Your task to perform on an android device: set the stopwatch Image 0: 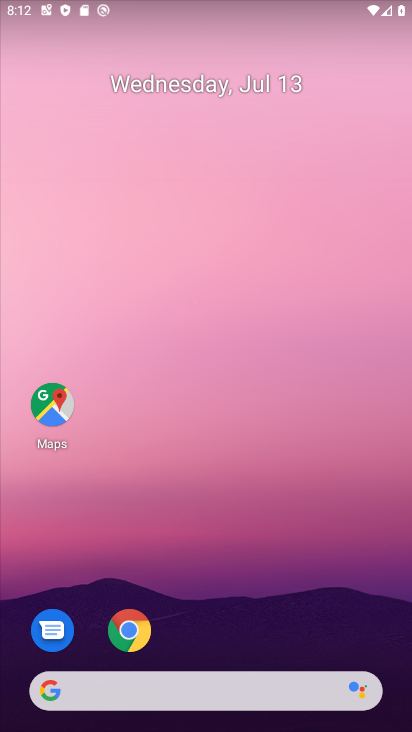
Step 0: drag from (350, 630) to (358, 157)
Your task to perform on an android device: set the stopwatch Image 1: 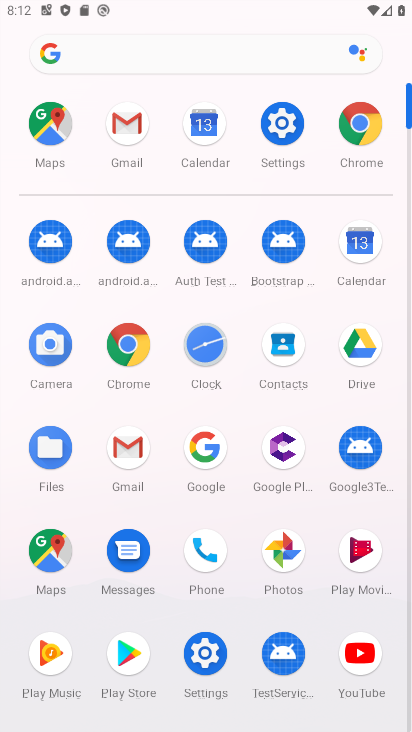
Step 1: click (208, 345)
Your task to perform on an android device: set the stopwatch Image 2: 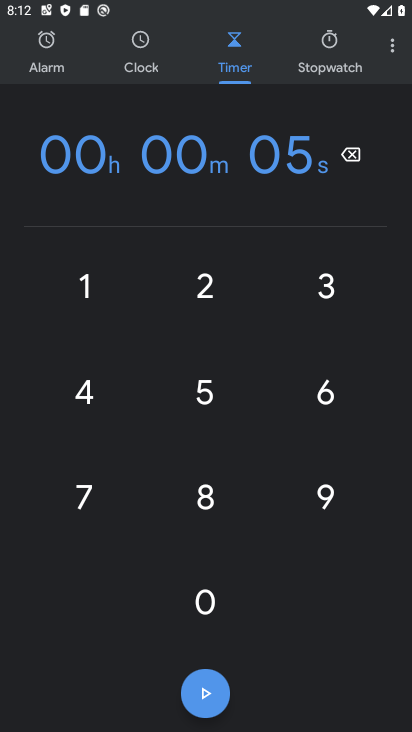
Step 2: click (329, 49)
Your task to perform on an android device: set the stopwatch Image 3: 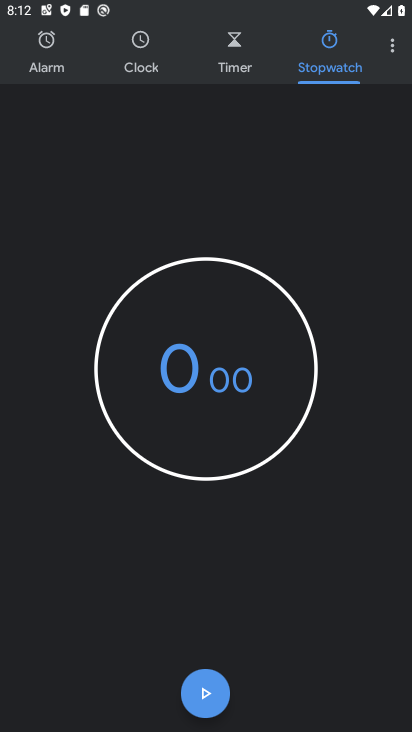
Step 3: click (204, 696)
Your task to perform on an android device: set the stopwatch Image 4: 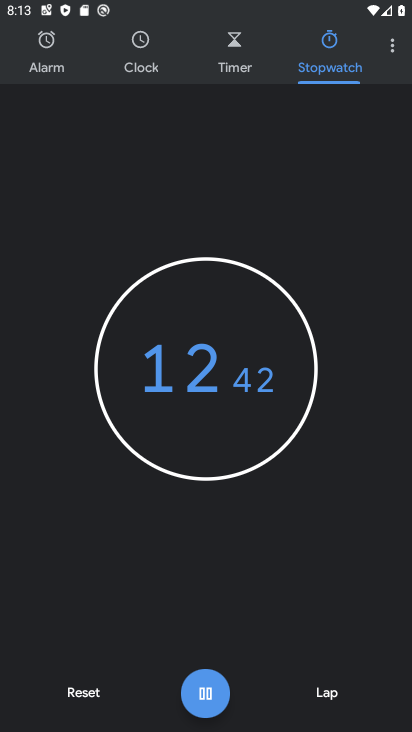
Step 4: task complete